Your task to perform on an android device: check out phone information Image 0: 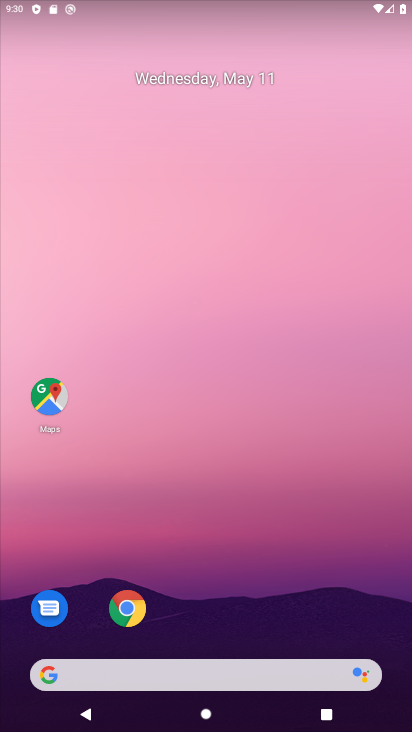
Step 0: drag from (281, 612) to (279, 152)
Your task to perform on an android device: check out phone information Image 1: 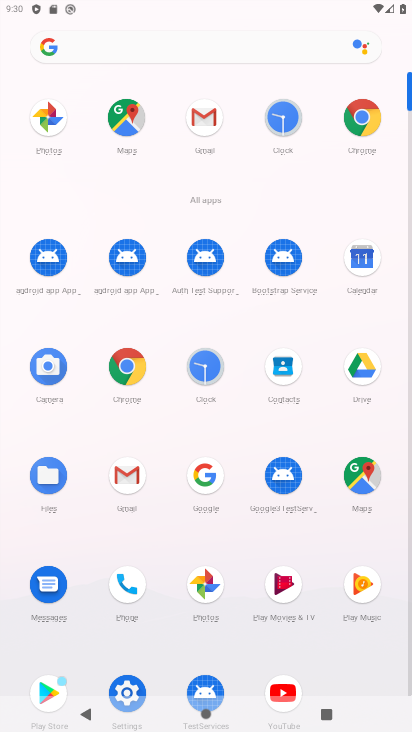
Step 1: click (123, 577)
Your task to perform on an android device: check out phone information Image 2: 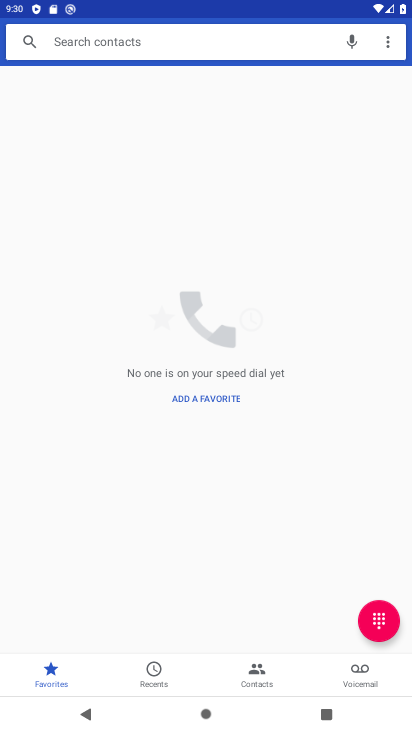
Step 2: drag from (385, 49) to (301, 69)
Your task to perform on an android device: check out phone information Image 3: 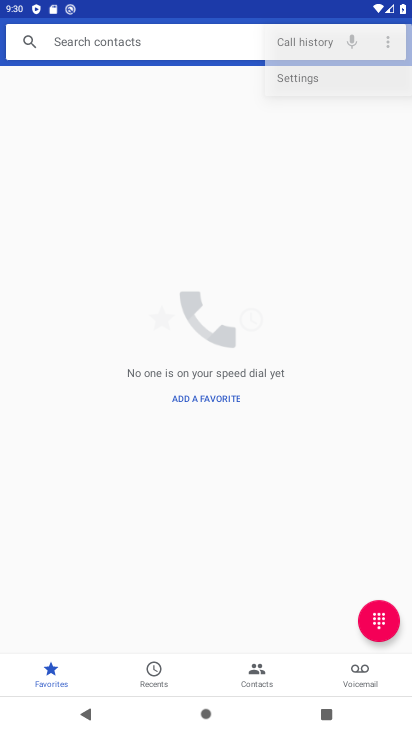
Step 3: click (298, 85)
Your task to perform on an android device: check out phone information Image 4: 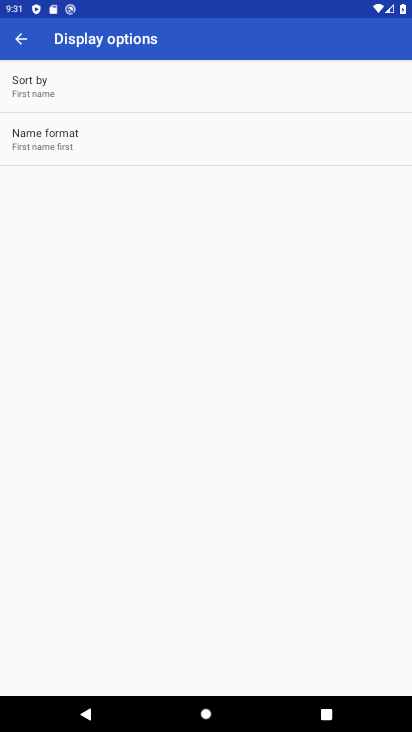
Step 4: press back button
Your task to perform on an android device: check out phone information Image 5: 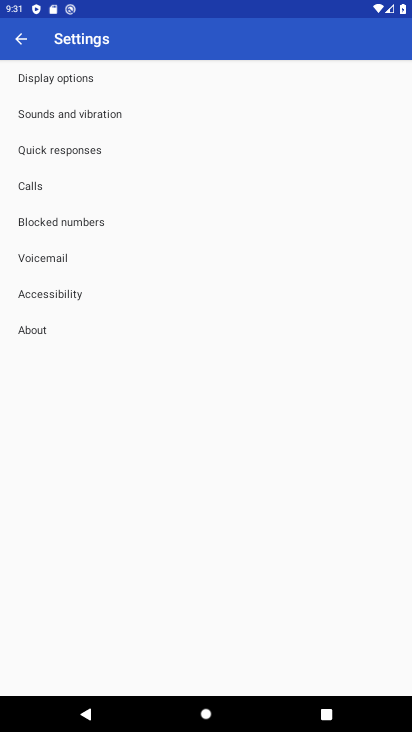
Step 5: click (73, 330)
Your task to perform on an android device: check out phone information Image 6: 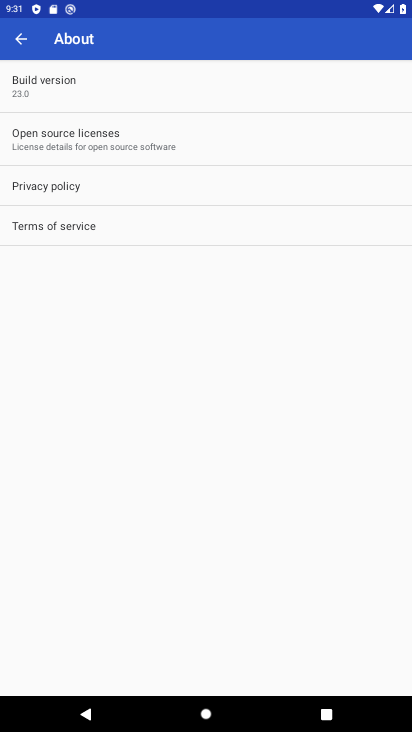
Step 6: task complete